Your task to perform on an android device: change the clock style Image 0: 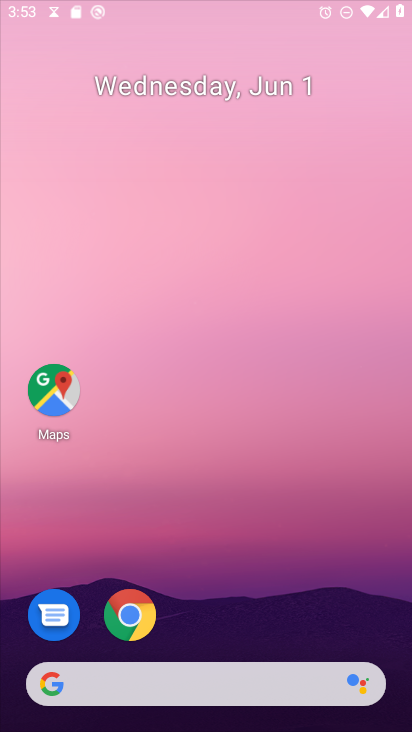
Step 0: press home button
Your task to perform on an android device: change the clock style Image 1: 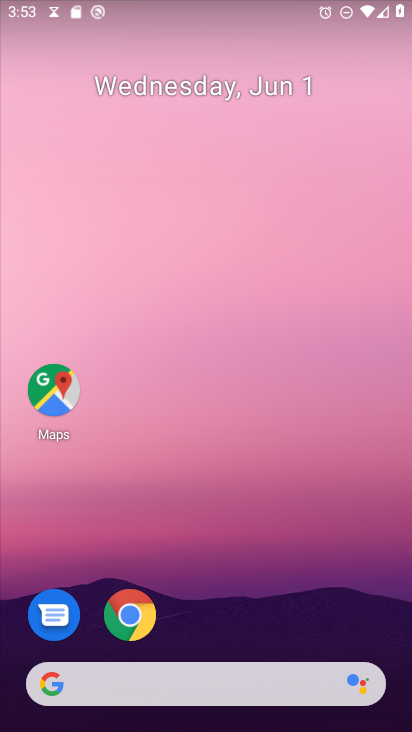
Step 1: drag from (212, 651) to (285, 44)
Your task to perform on an android device: change the clock style Image 2: 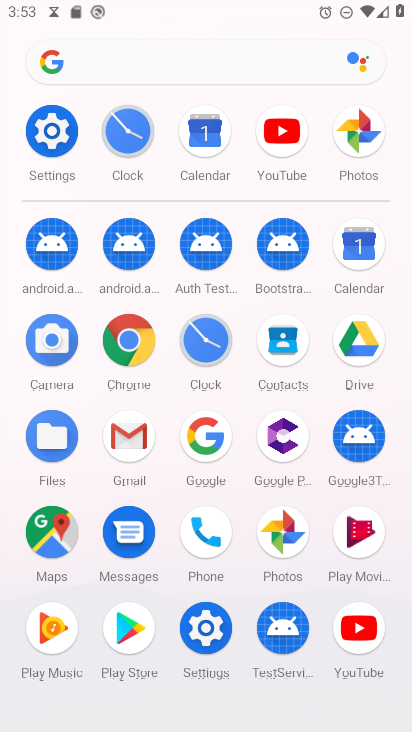
Step 2: click (205, 334)
Your task to perform on an android device: change the clock style Image 3: 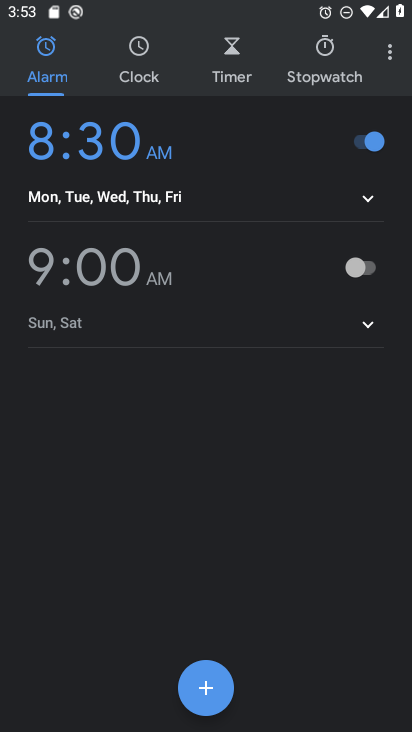
Step 3: click (385, 49)
Your task to perform on an android device: change the clock style Image 4: 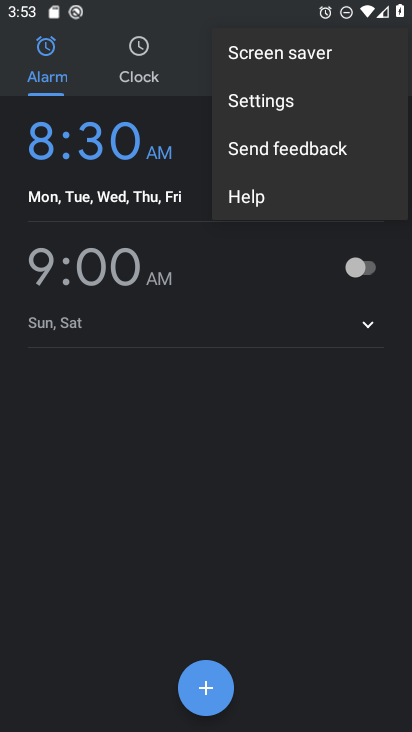
Step 4: click (283, 100)
Your task to perform on an android device: change the clock style Image 5: 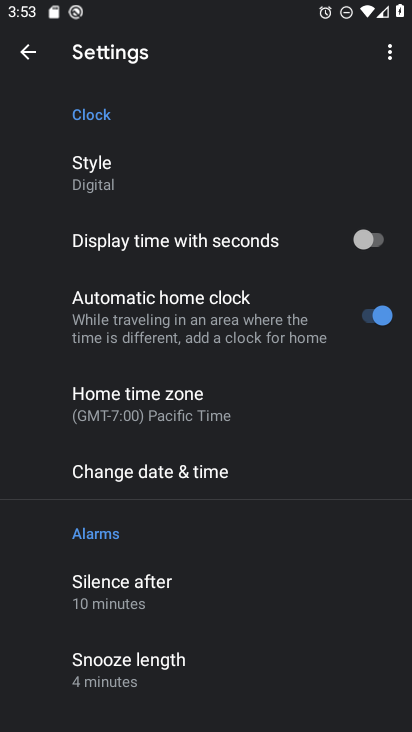
Step 5: click (142, 168)
Your task to perform on an android device: change the clock style Image 6: 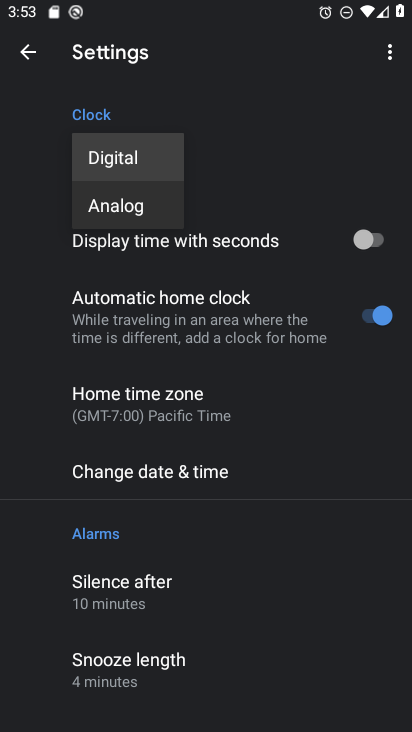
Step 6: click (147, 201)
Your task to perform on an android device: change the clock style Image 7: 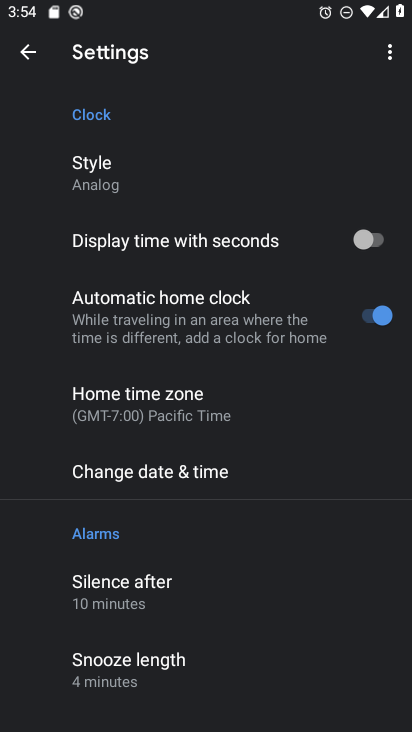
Step 7: click (152, 170)
Your task to perform on an android device: change the clock style Image 8: 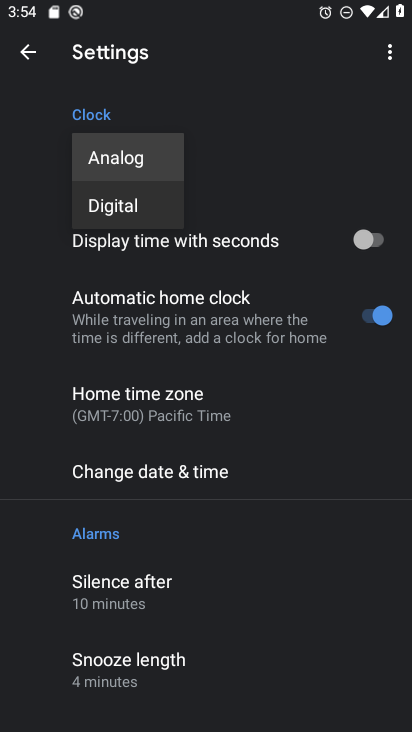
Step 8: click (149, 202)
Your task to perform on an android device: change the clock style Image 9: 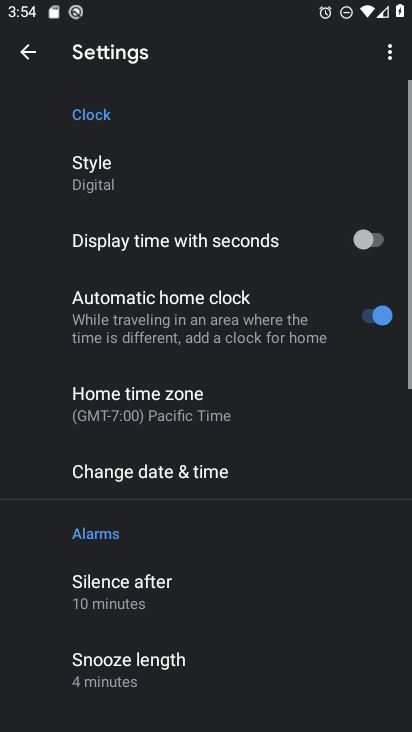
Step 9: task complete